Your task to perform on an android device: Clear all items from cart on costco.com. Add duracell triple a to the cart on costco.com Image 0: 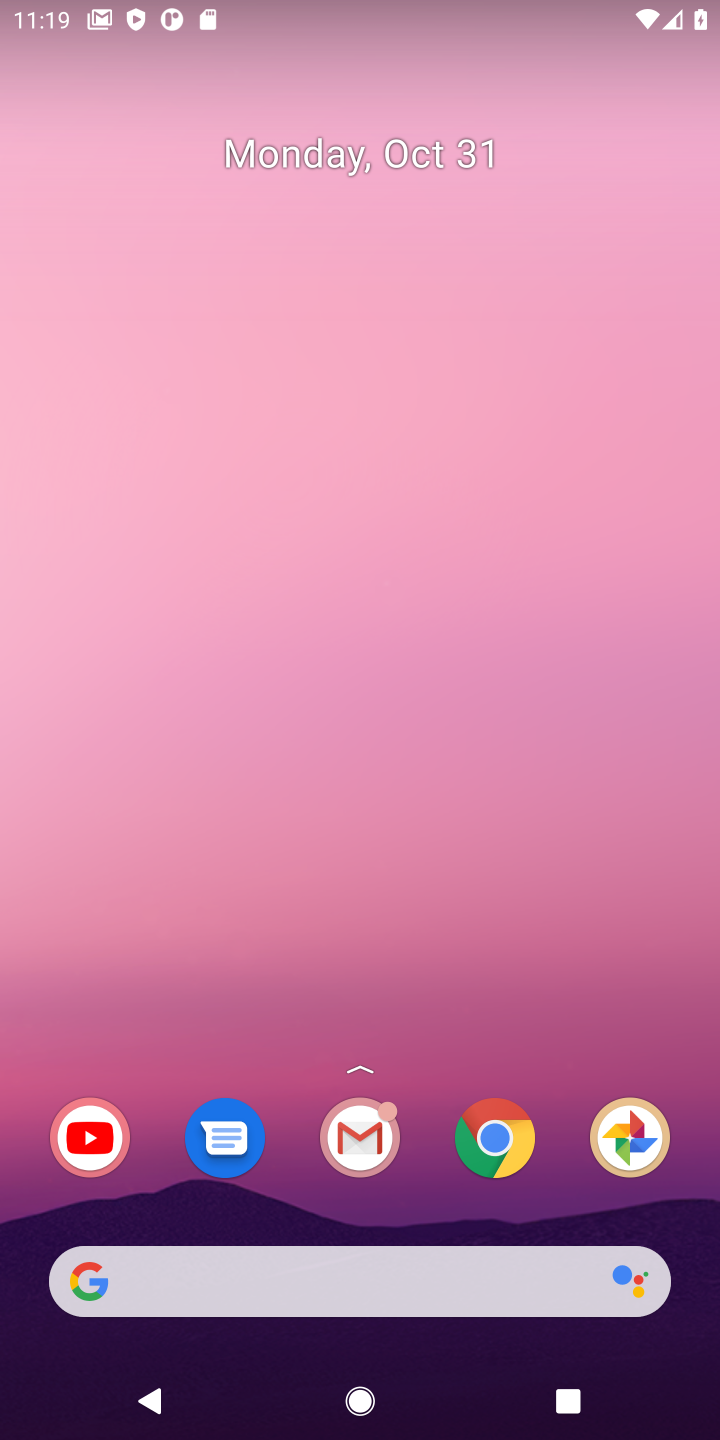
Step 0: click (486, 1132)
Your task to perform on an android device: Clear all items from cart on costco.com. Add duracell triple a to the cart on costco.com Image 1: 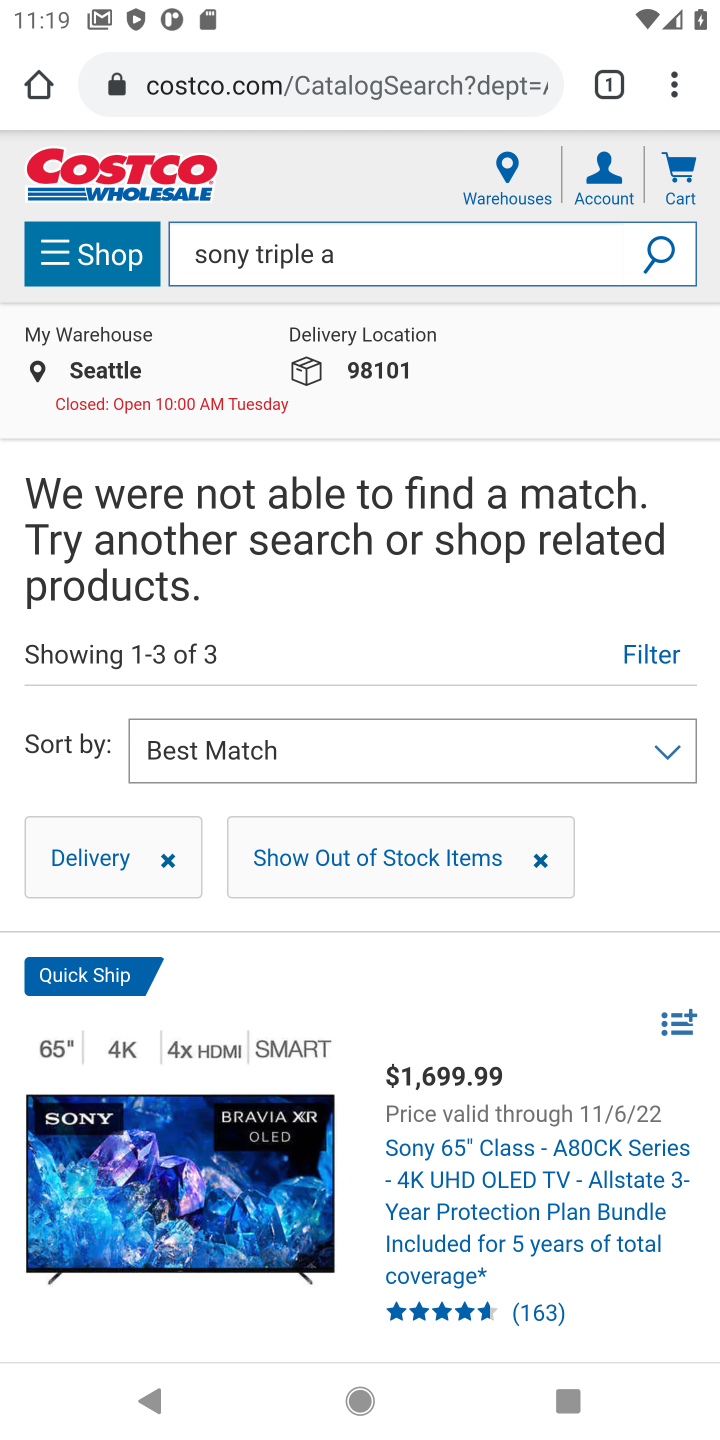
Step 1: click (659, 151)
Your task to perform on an android device: Clear all items from cart on costco.com. Add duracell triple a to the cart on costco.com Image 2: 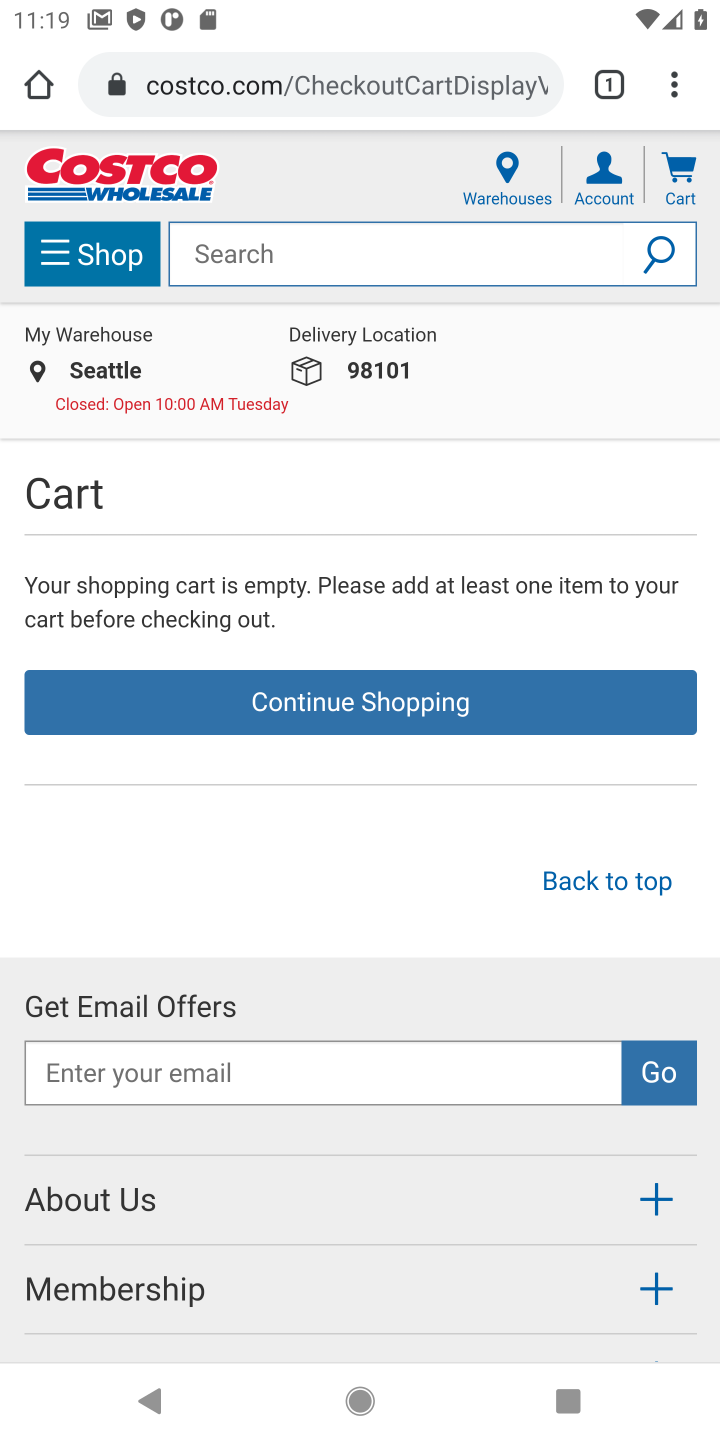
Step 2: click (307, 276)
Your task to perform on an android device: Clear all items from cart on costco.com. Add duracell triple a to the cart on costco.com Image 3: 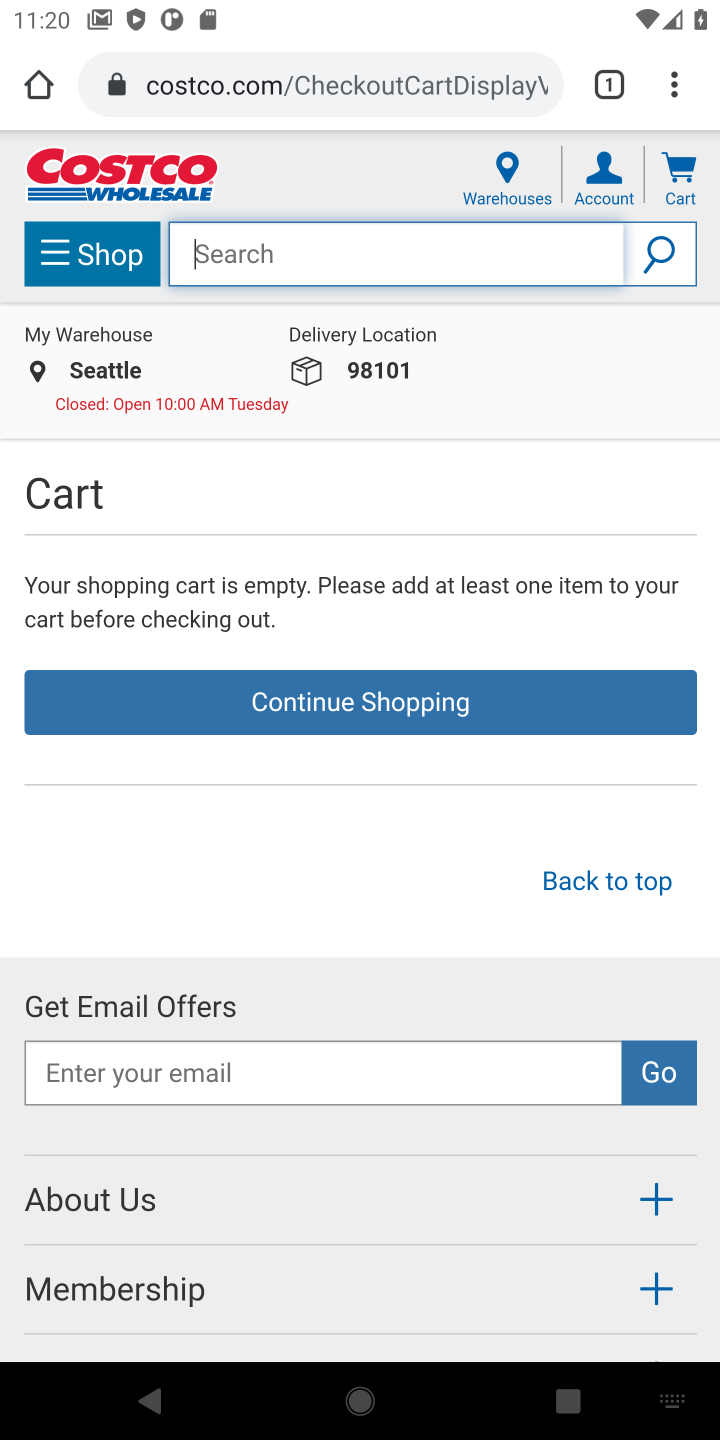
Step 3: type "duracell triple a"
Your task to perform on an android device: Clear all items from cart on costco.com. Add duracell triple a to the cart on costco.com Image 4: 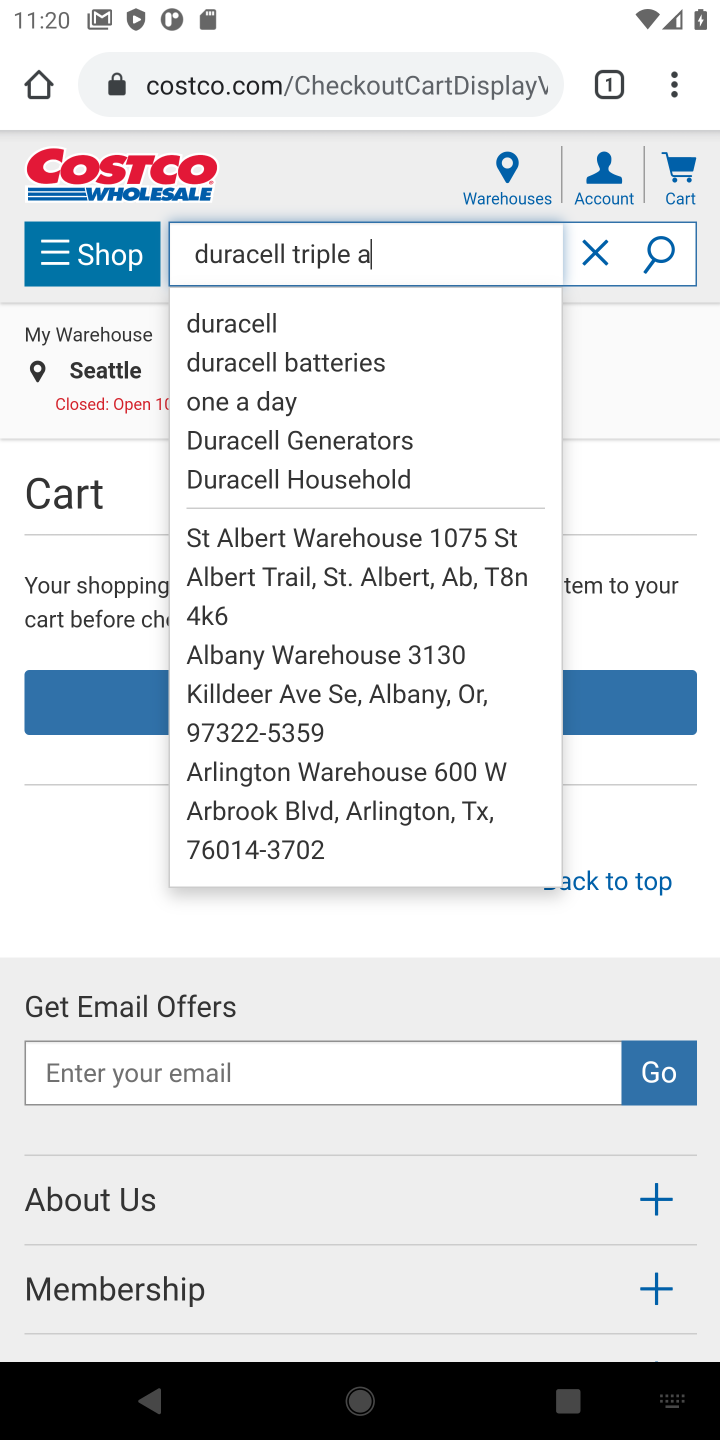
Step 4: click (675, 245)
Your task to perform on an android device: Clear all items from cart on costco.com. Add duracell triple a to the cart on costco.com Image 5: 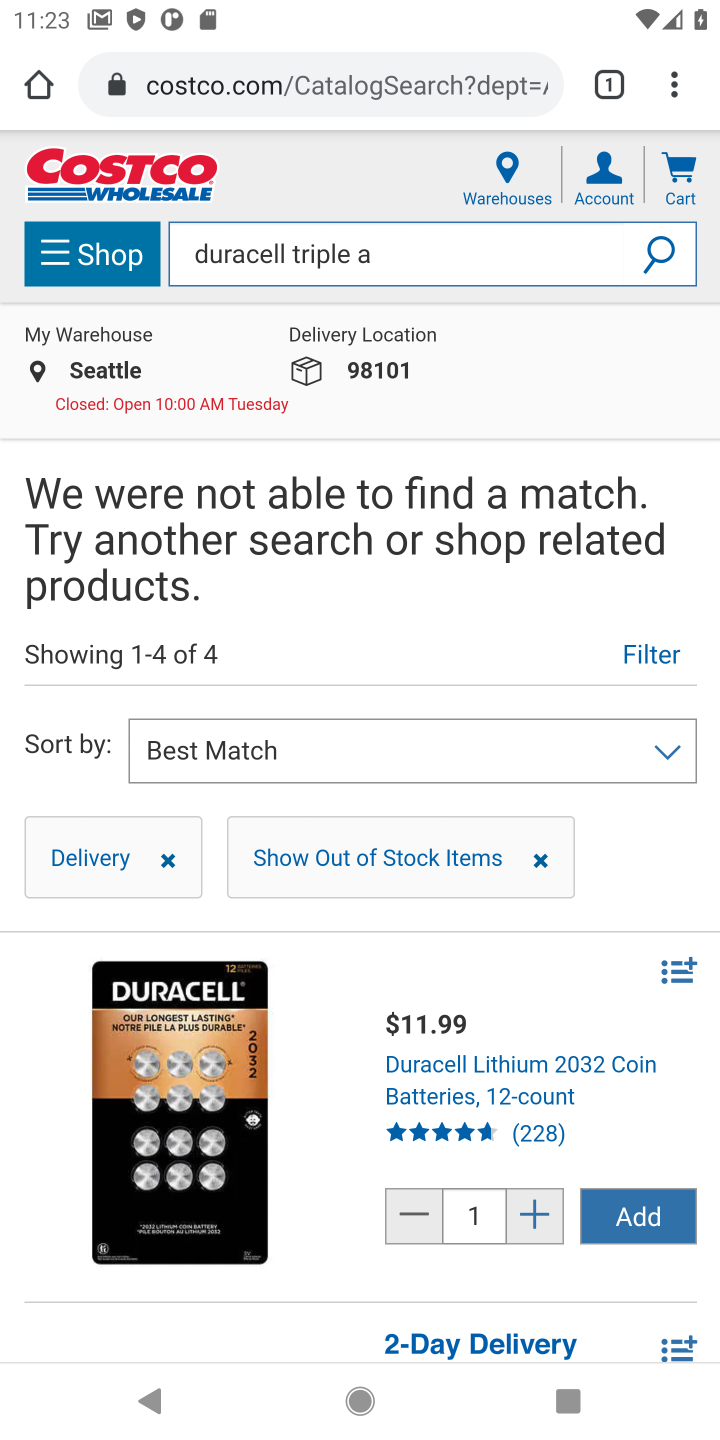
Step 5: task complete